Your task to perform on an android device: toggle priority inbox in the gmail app Image 0: 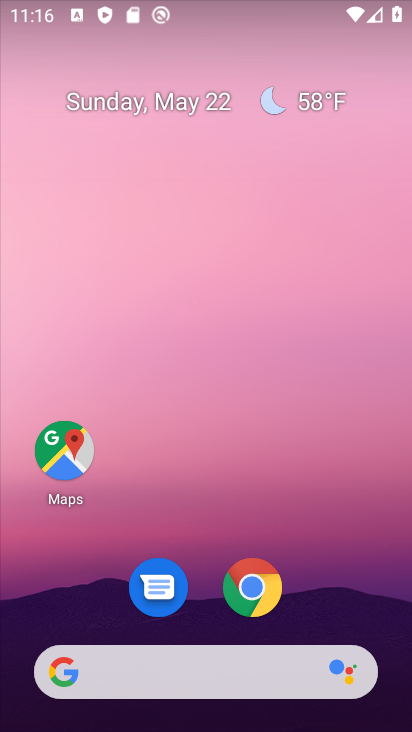
Step 0: drag from (164, 488) to (163, 78)
Your task to perform on an android device: toggle priority inbox in the gmail app Image 1: 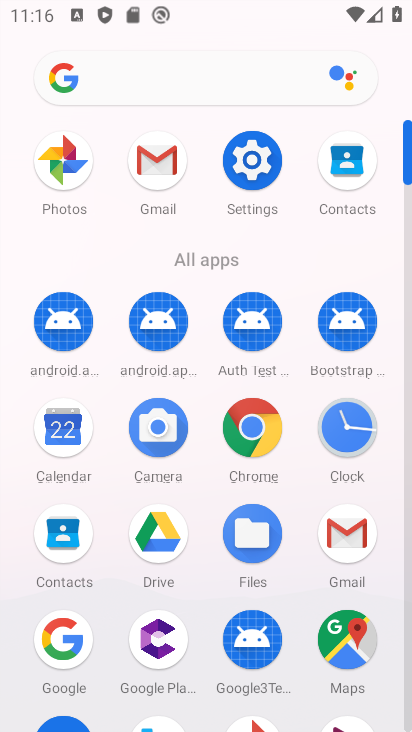
Step 1: click (163, 165)
Your task to perform on an android device: toggle priority inbox in the gmail app Image 2: 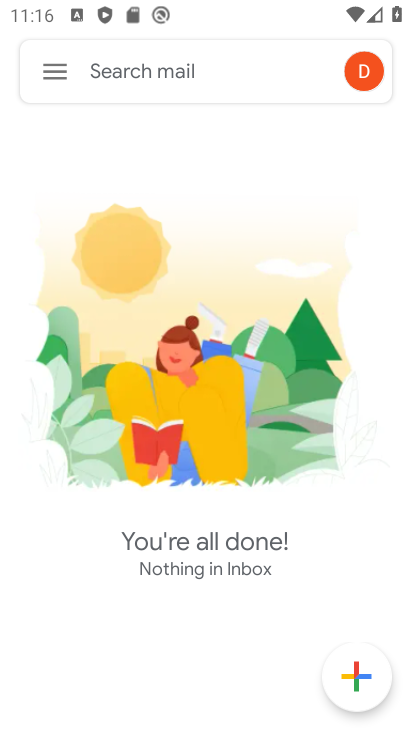
Step 2: click (59, 67)
Your task to perform on an android device: toggle priority inbox in the gmail app Image 3: 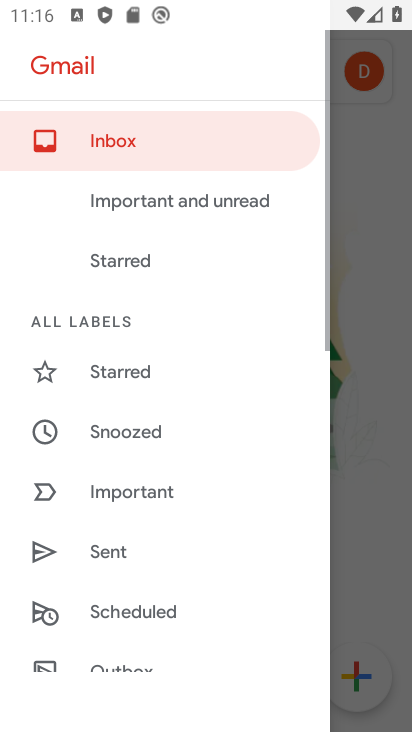
Step 3: drag from (190, 512) to (215, 107)
Your task to perform on an android device: toggle priority inbox in the gmail app Image 4: 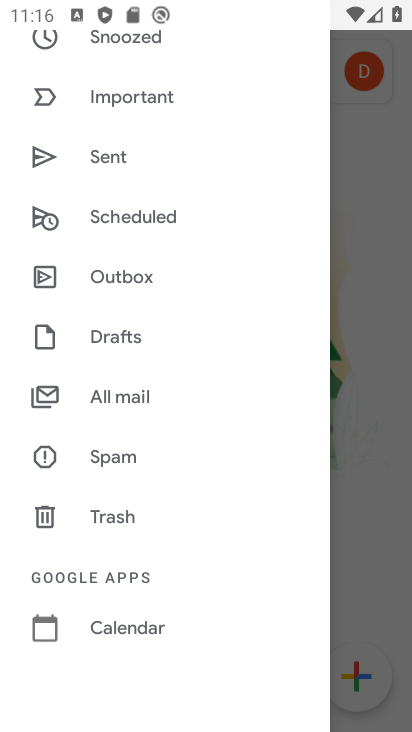
Step 4: drag from (161, 405) to (182, 169)
Your task to perform on an android device: toggle priority inbox in the gmail app Image 5: 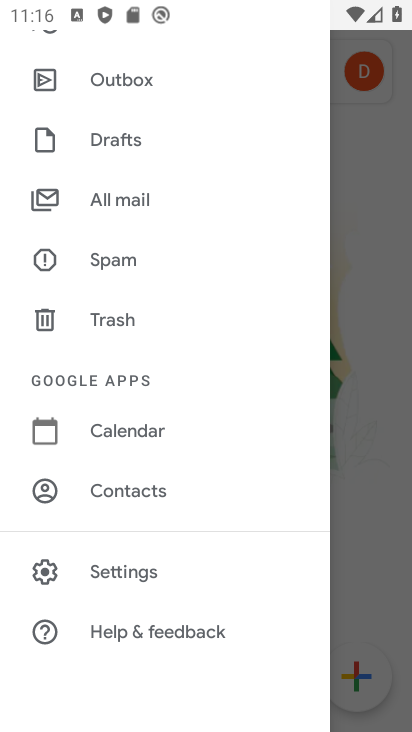
Step 5: click (135, 572)
Your task to perform on an android device: toggle priority inbox in the gmail app Image 6: 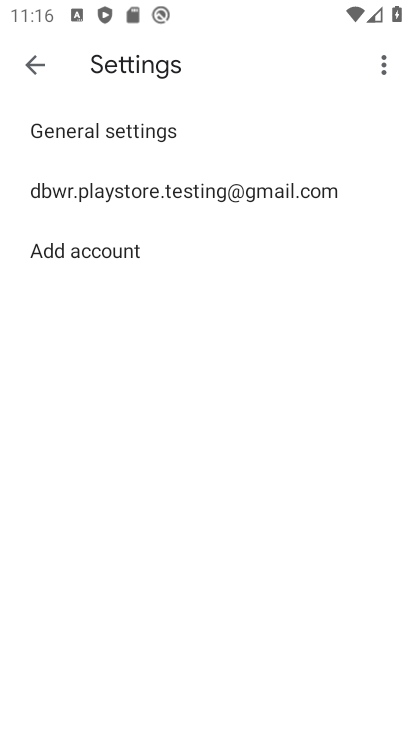
Step 6: click (257, 187)
Your task to perform on an android device: toggle priority inbox in the gmail app Image 7: 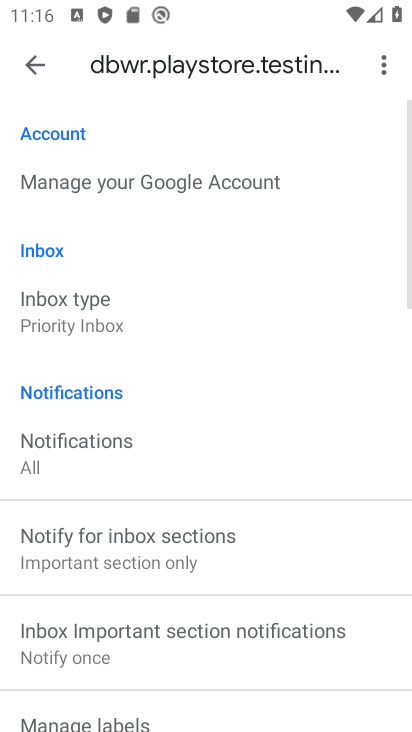
Step 7: click (116, 322)
Your task to perform on an android device: toggle priority inbox in the gmail app Image 8: 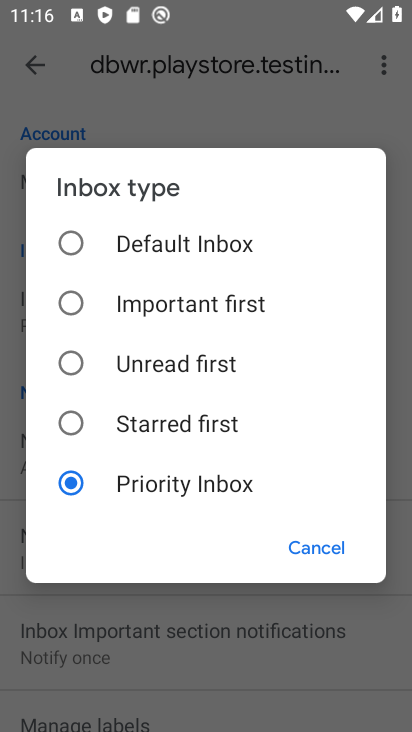
Step 8: click (87, 233)
Your task to perform on an android device: toggle priority inbox in the gmail app Image 9: 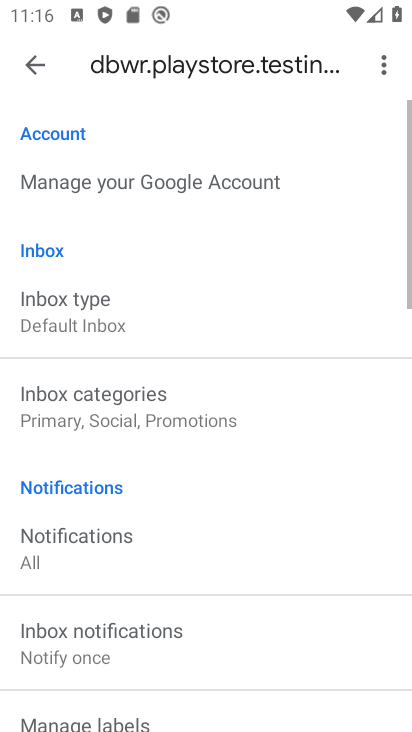
Step 9: task complete